Your task to perform on an android device: turn off translation in the chrome app Image 0: 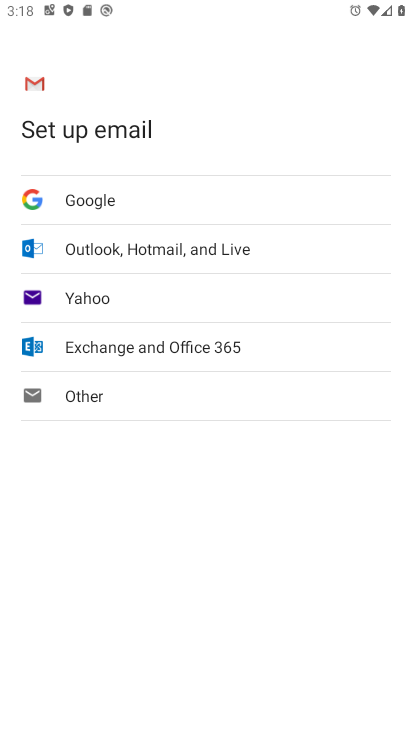
Step 0: press home button
Your task to perform on an android device: turn off translation in the chrome app Image 1: 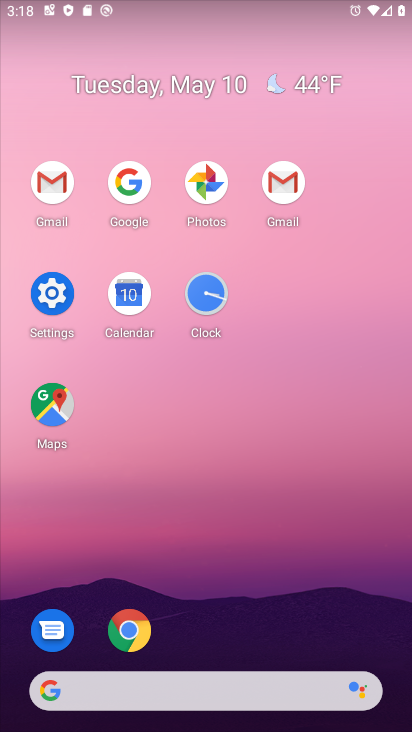
Step 1: click (119, 623)
Your task to perform on an android device: turn off translation in the chrome app Image 2: 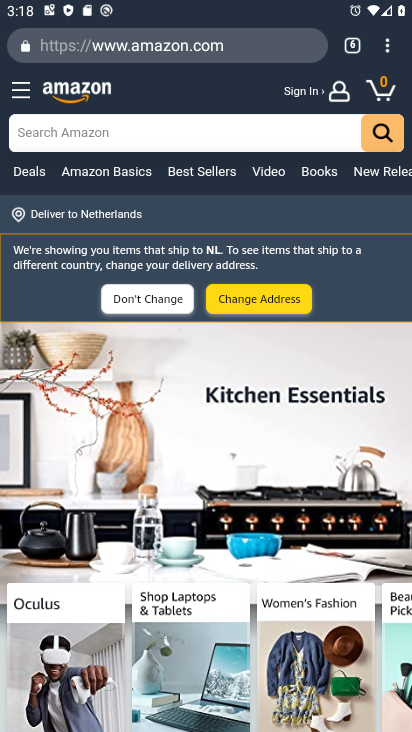
Step 2: click (392, 39)
Your task to perform on an android device: turn off translation in the chrome app Image 3: 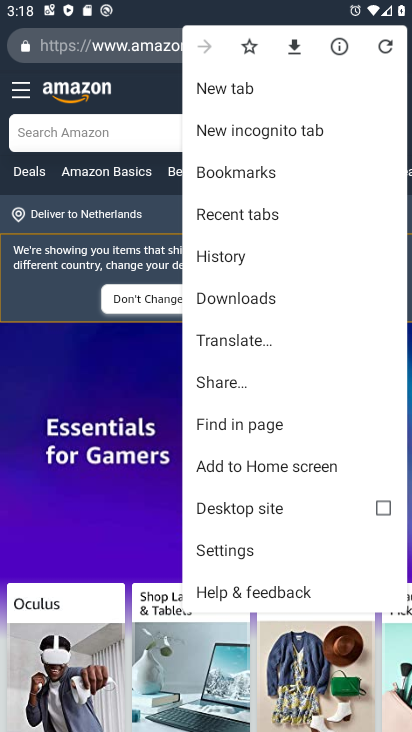
Step 3: click (251, 547)
Your task to perform on an android device: turn off translation in the chrome app Image 4: 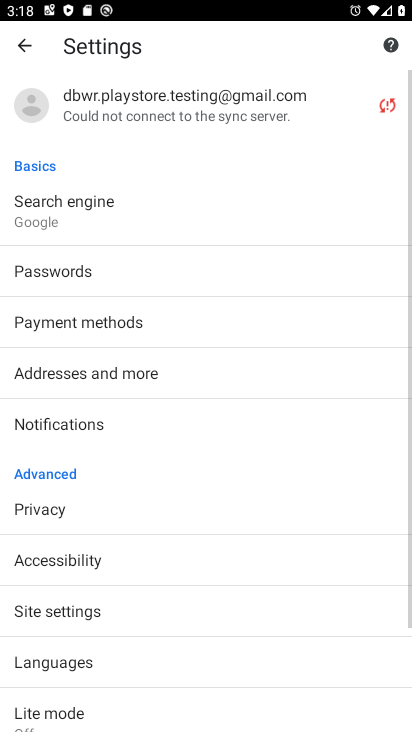
Step 4: drag from (172, 625) to (239, 236)
Your task to perform on an android device: turn off translation in the chrome app Image 5: 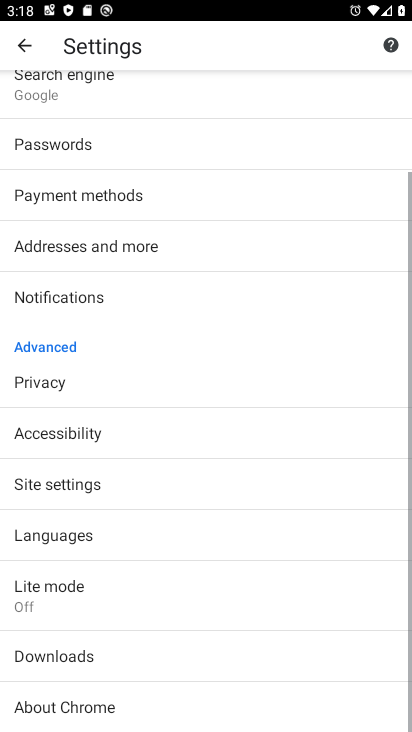
Step 5: click (166, 534)
Your task to perform on an android device: turn off translation in the chrome app Image 6: 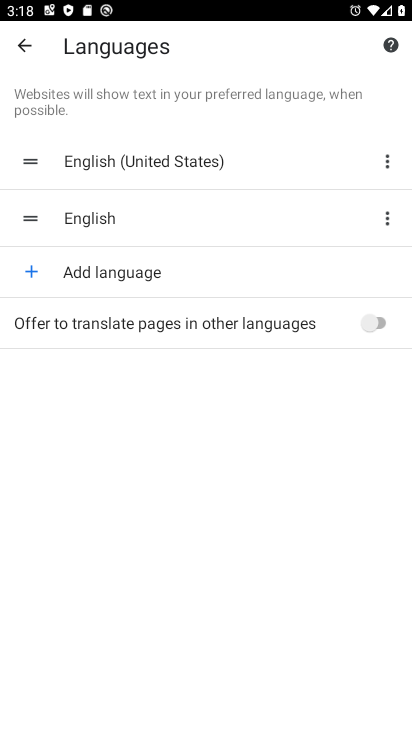
Step 6: task complete